Your task to perform on an android device: Open network settings Image 0: 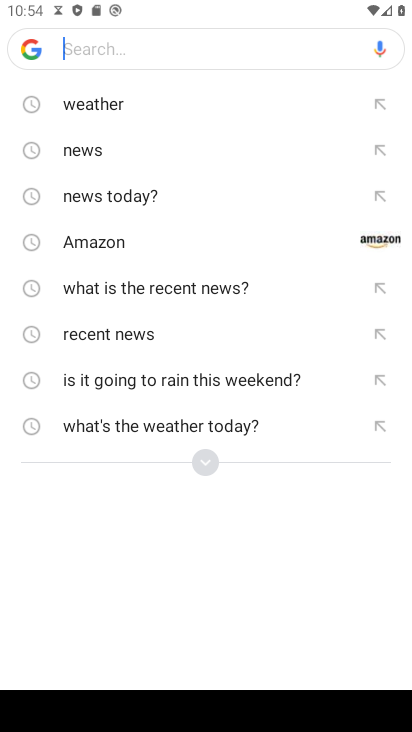
Step 0: press home button
Your task to perform on an android device: Open network settings Image 1: 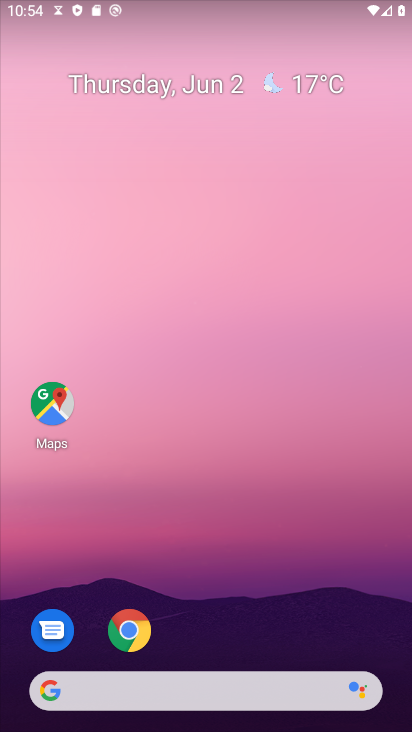
Step 1: drag from (227, 639) to (188, 4)
Your task to perform on an android device: Open network settings Image 2: 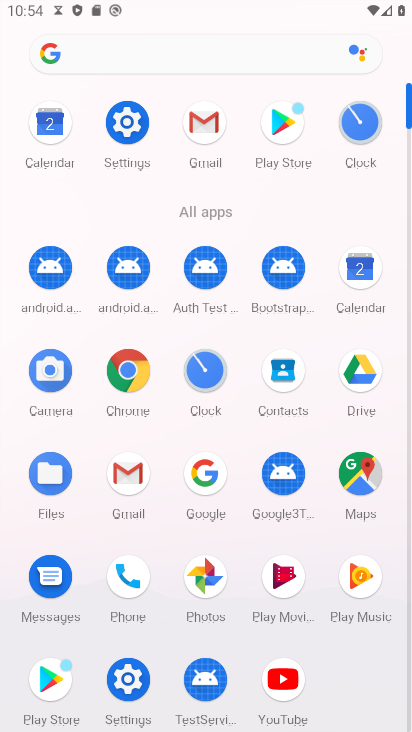
Step 2: click (146, 155)
Your task to perform on an android device: Open network settings Image 3: 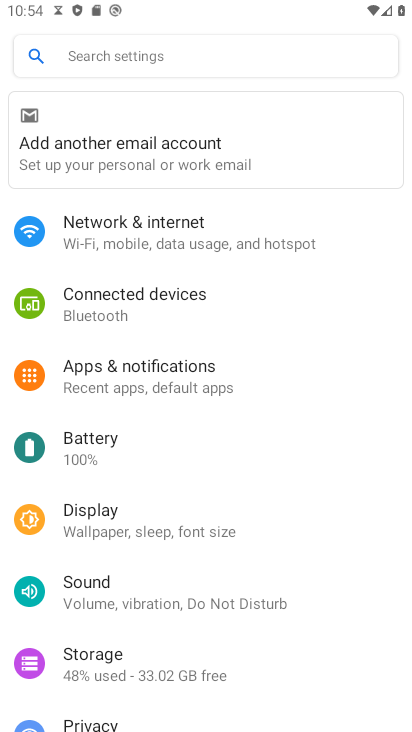
Step 3: click (167, 264)
Your task to perform on an android device: Open network settings Image 4: 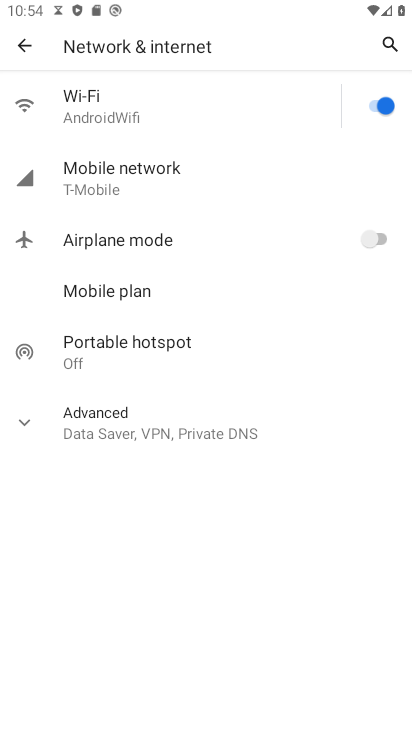
Step 4: task complete